Your task to perform on an android device: open a bookmark in the chrome app Image 0: 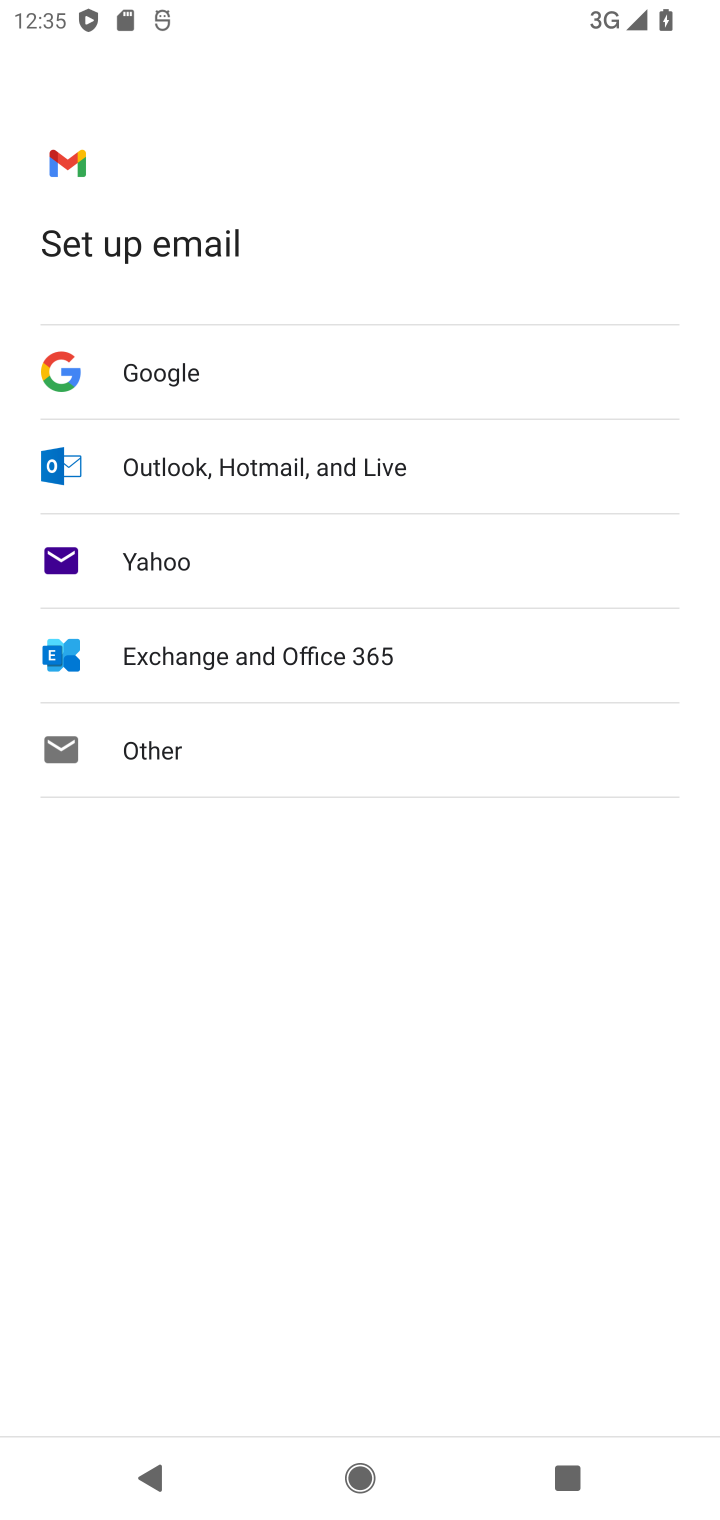
Step 0: press home button
Your task to perform on an android device: open a bookmark in the chrome app Image 1: 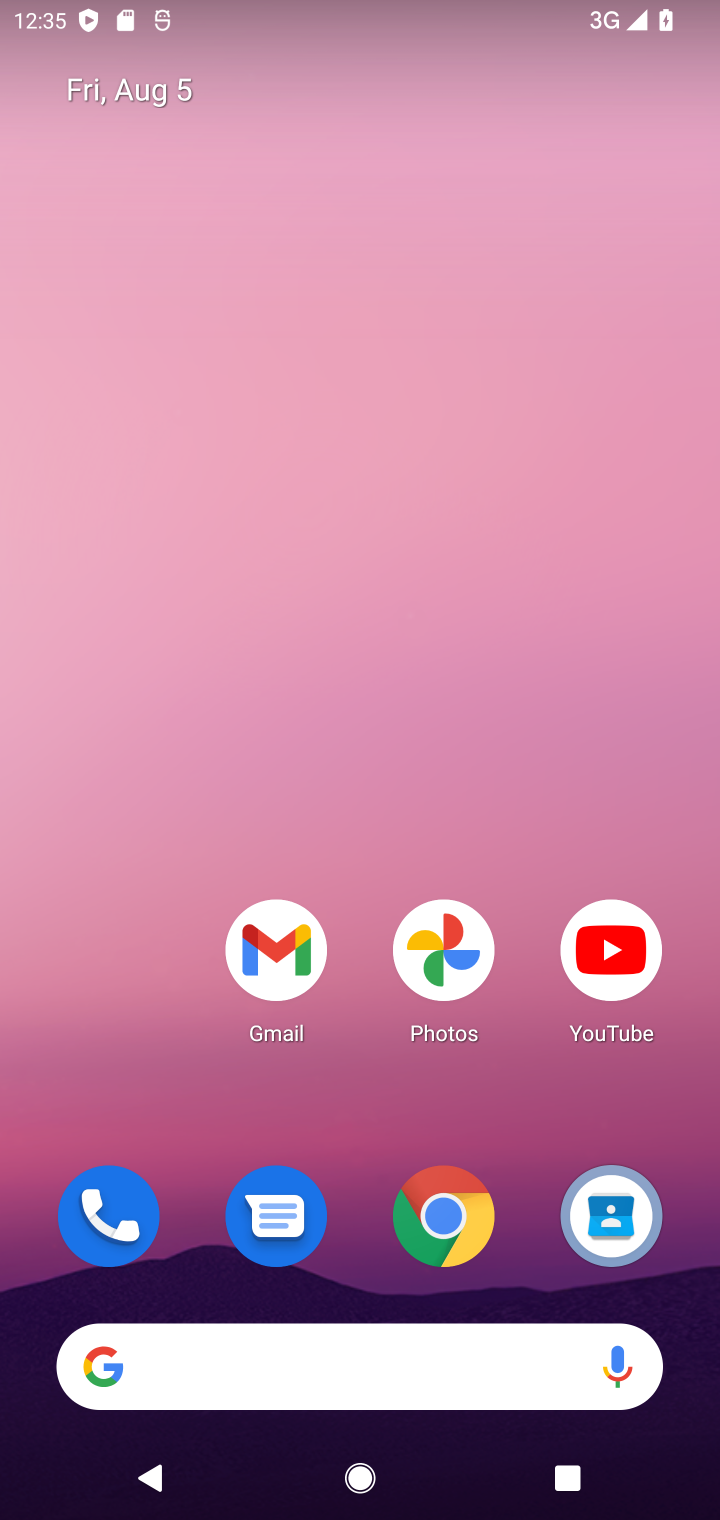
Step 1: drag from (410, 1387) to (410, 24)
Your task to perform on an android device: open a bookmark in the chrome app Image 2: 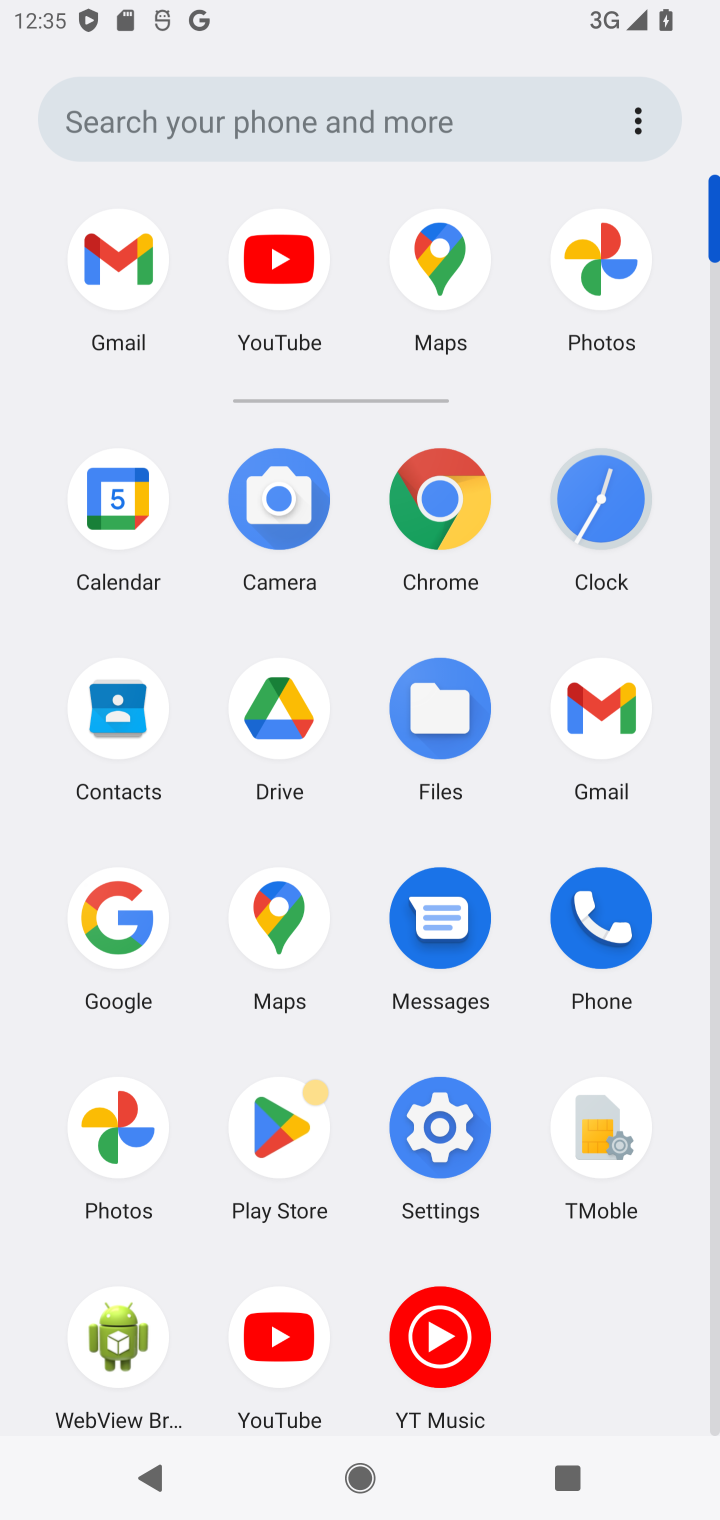
Step 2: click (418, 510)
Your task to perform on an android device: open a bookmark in the chrome app Image 3: 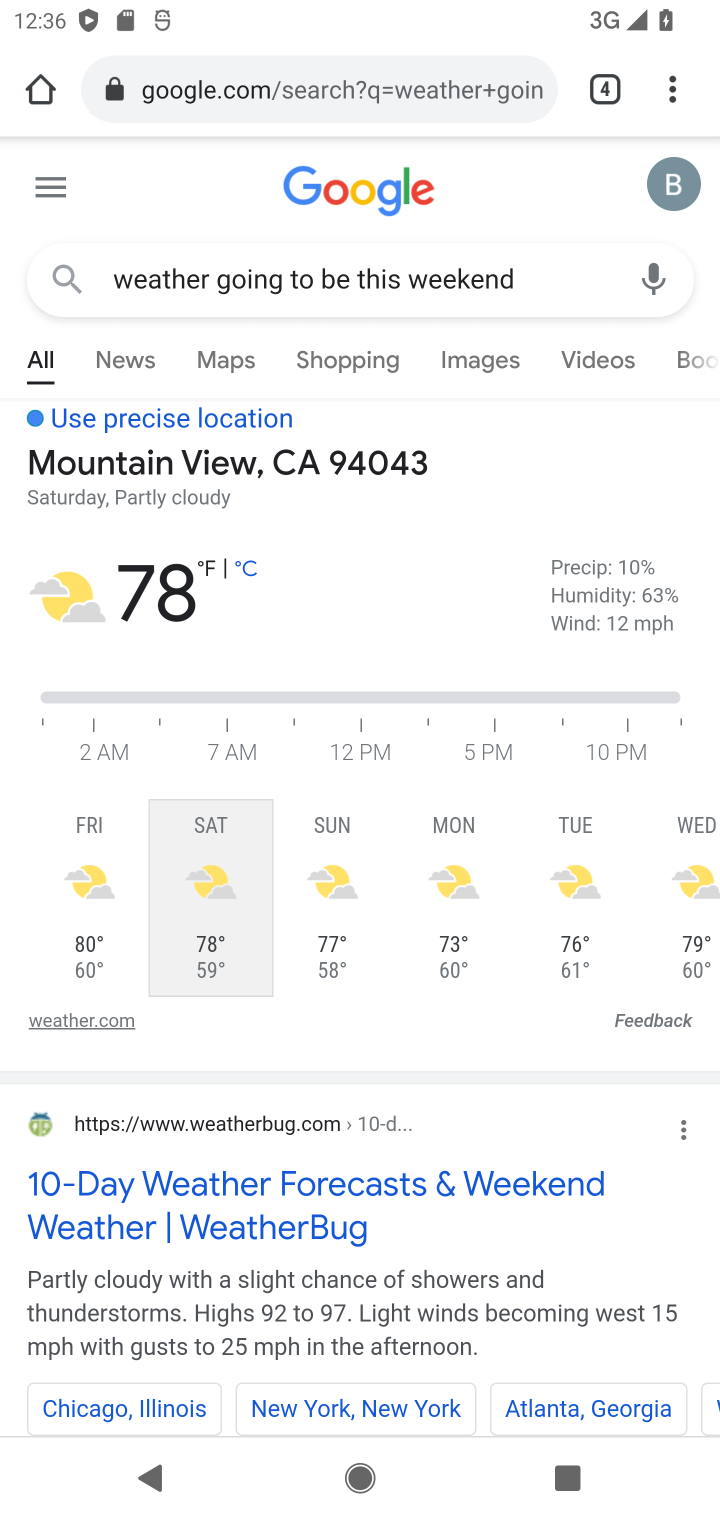
Step 3: click (677, 91)
Your task to perform on an android device: open a bookmark in the chrome app Image 4: 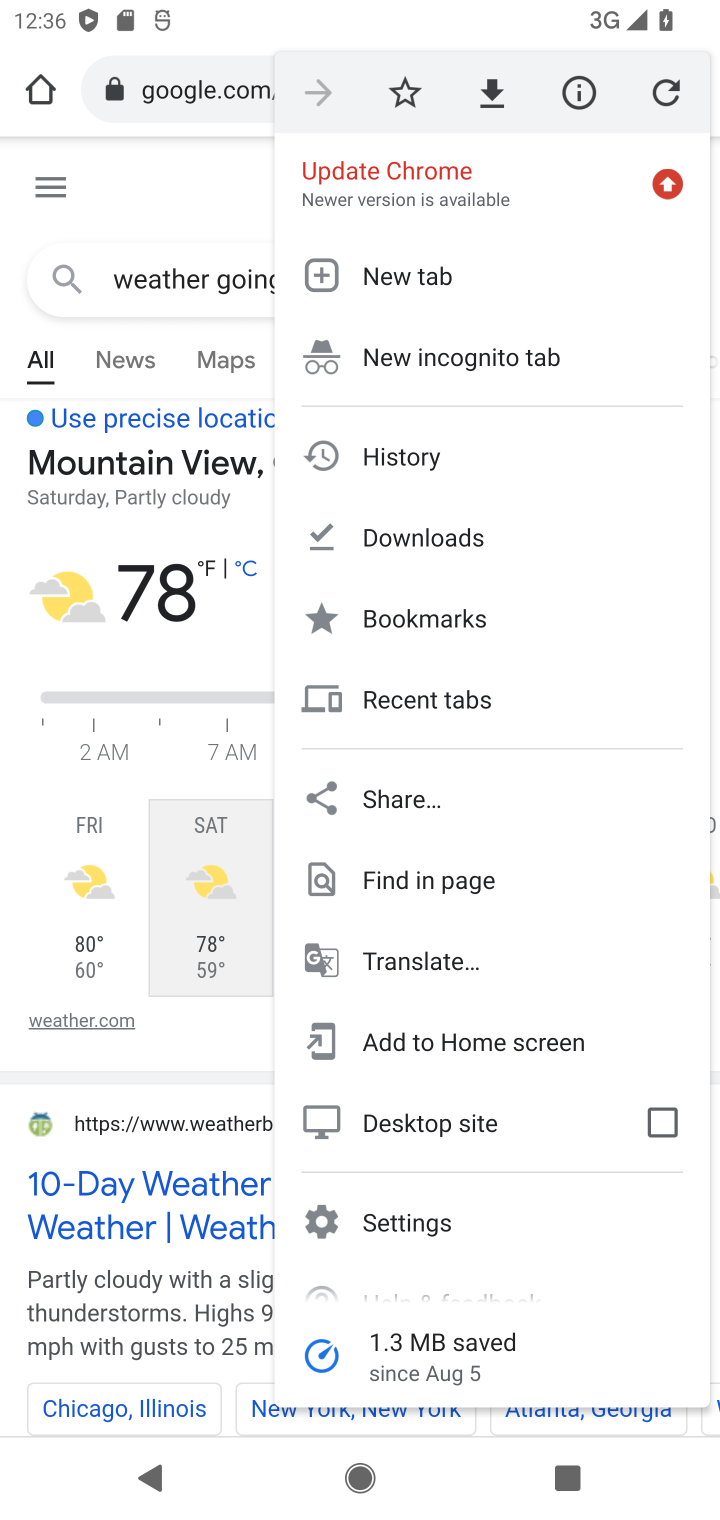
Step 4: click (330, 610)
Your task to perform on an android device: open a bookmark in the chrome app Image 5: 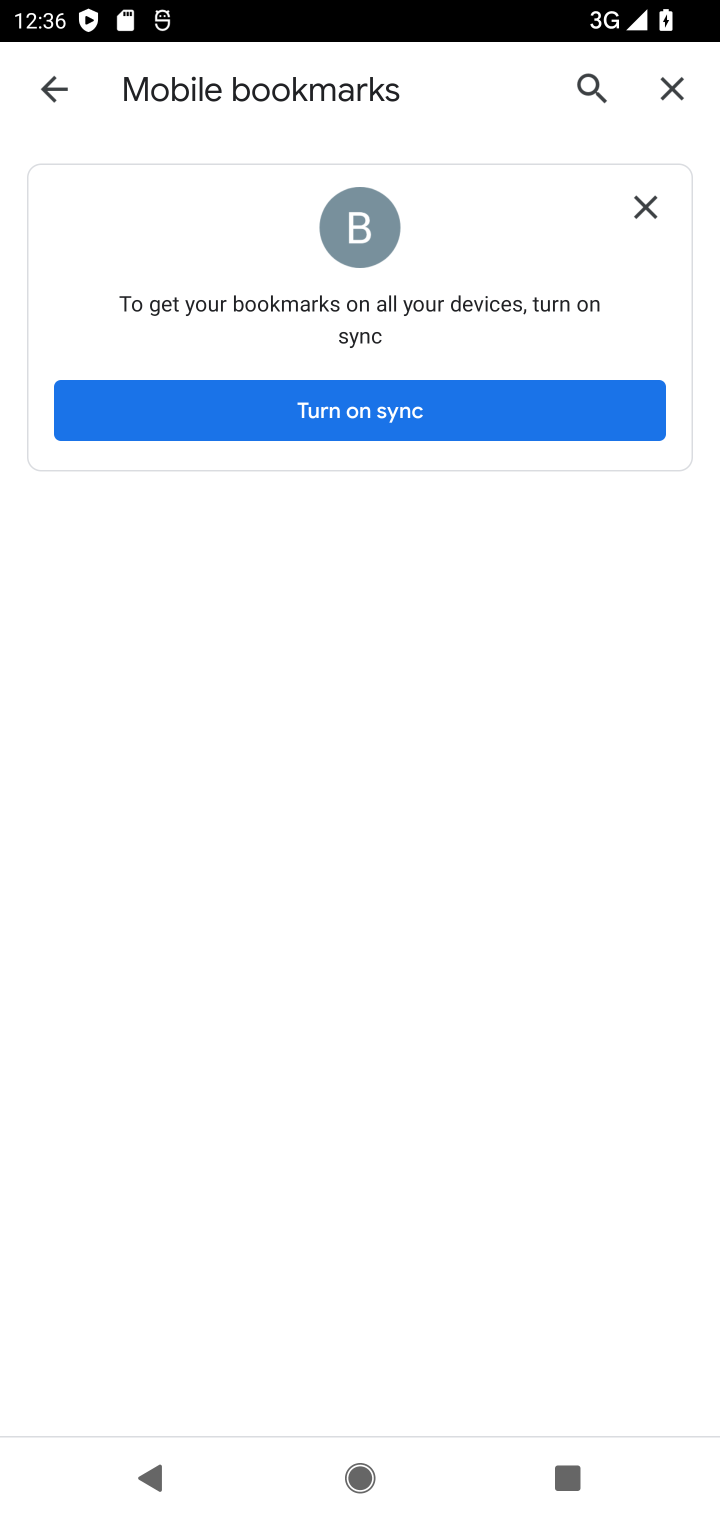
Step 5: task complete